Your task to perform on an android device: turn off wifi Image 0: 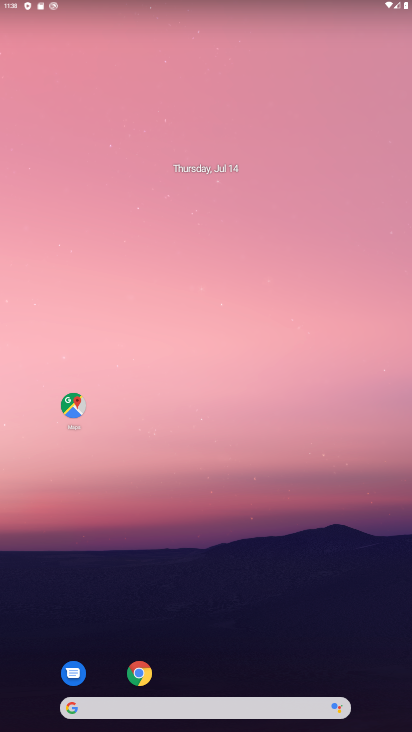
Step 0: drag from (218, 532) to (288, 112)
Your task to perform on an android device: turn off wifi Image 1: 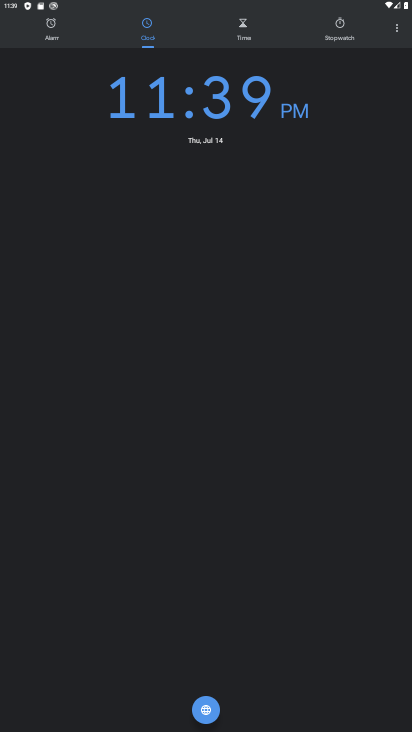
Step 1: press home button
Your task to perform on an android device: turn off wifi Image 2: 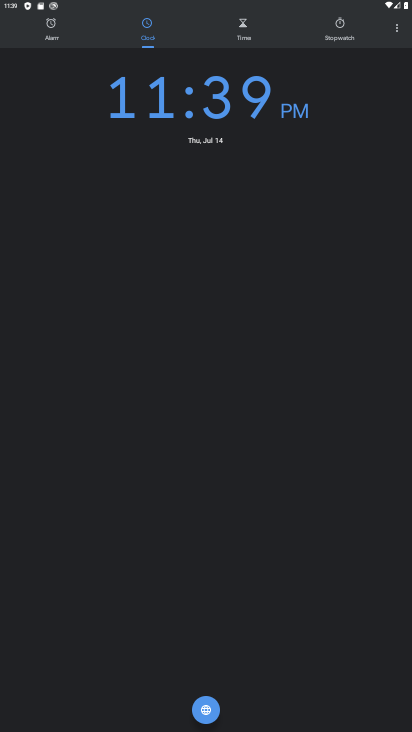
Step 2: drag from (273, 435) to (328, 107)
Your task to perform on an android device: turn off wifi Image 3: 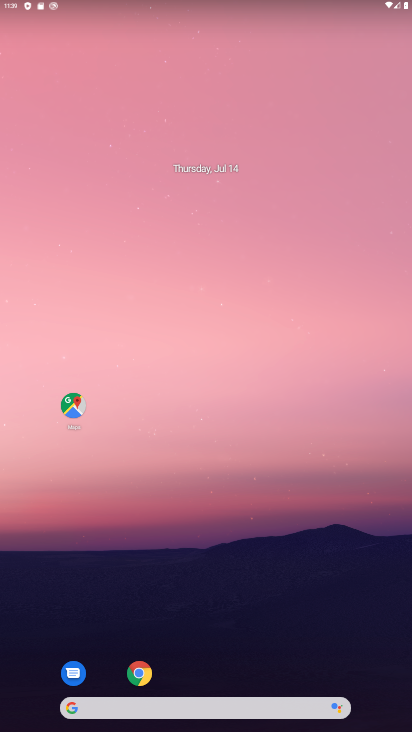
Step 3: drag from (198, 600) to (314, 128)
Your task to perform on an android device: turn off wifi Image 4: 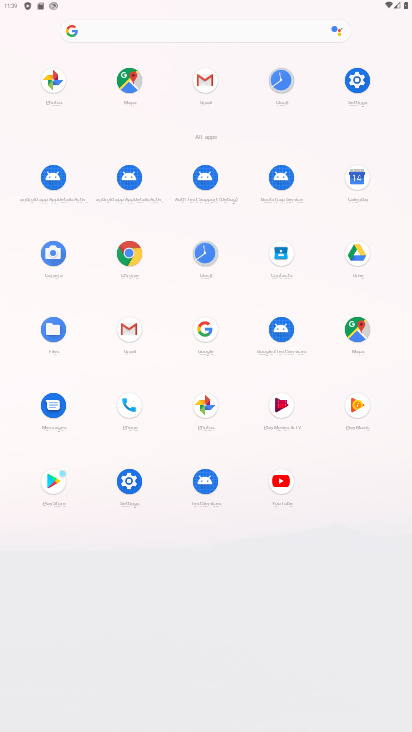
Step 4: click (358, 84)
Your task to perform on an android device: turn off wifi Image 5: 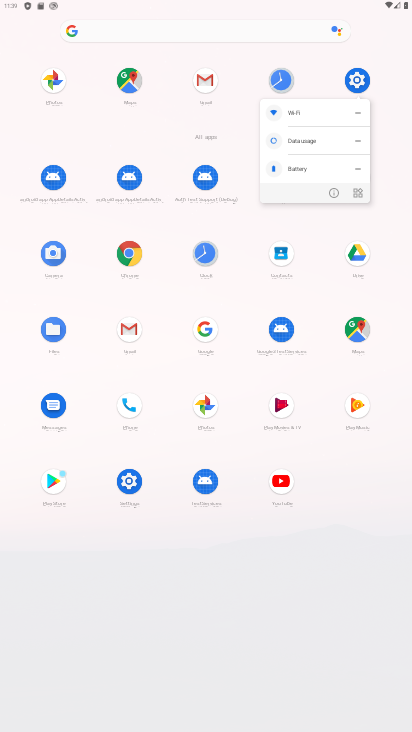
Step 5: click (327, 198)
Your task to perform on an android device: turn off wifi Image 6: 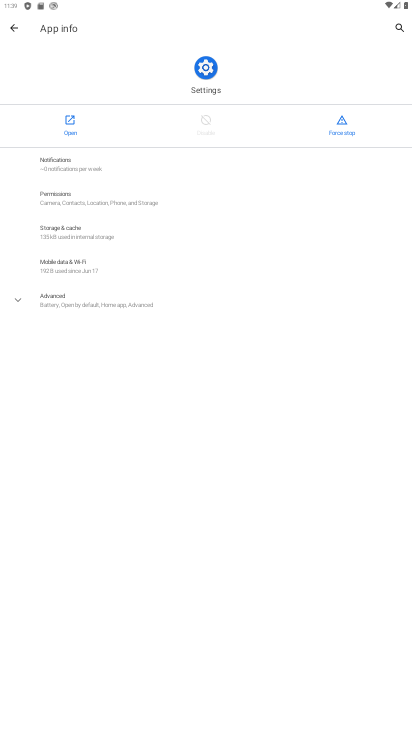
Step 6: click (61, 120)
Your task to perform on an android device: turn off wifi Image 7: 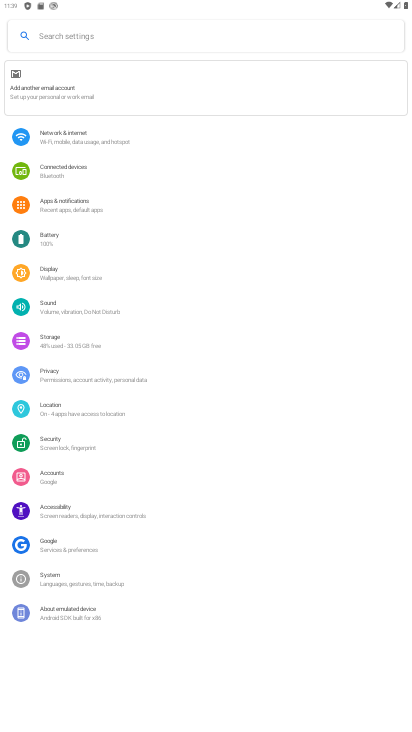
Step 7: click (78, 135)
Your task to perform on an android device: turn off wifi Image 8: 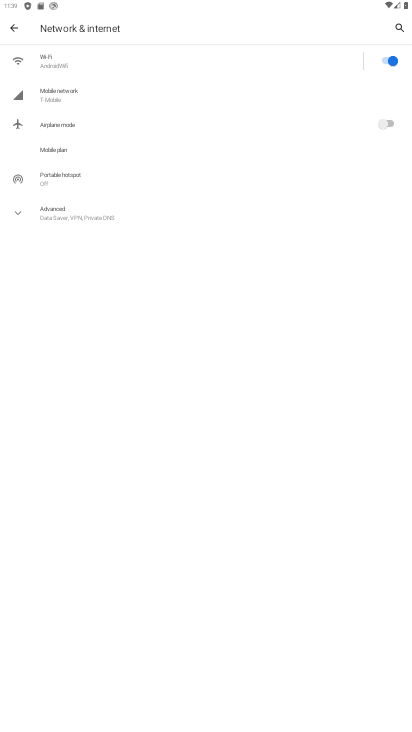
Step 8: click (168, 64)
Your task to perform on an android device: turn off wifi Image 9: 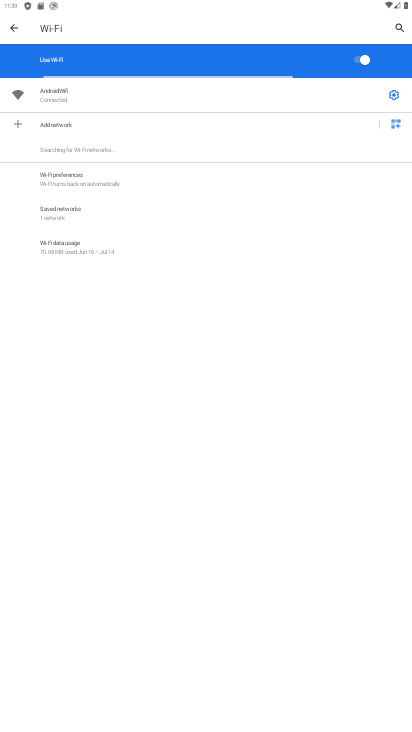
Step 9: click (360, 58)
Your task to perform on an android device: turn off wifi Image 10: 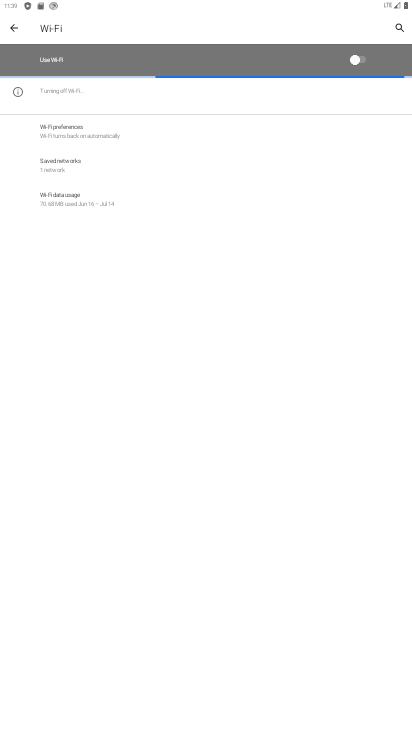
Step 10: task complete